Your task to perform on an android device: find snoozed emails in the gmail app Image 0: 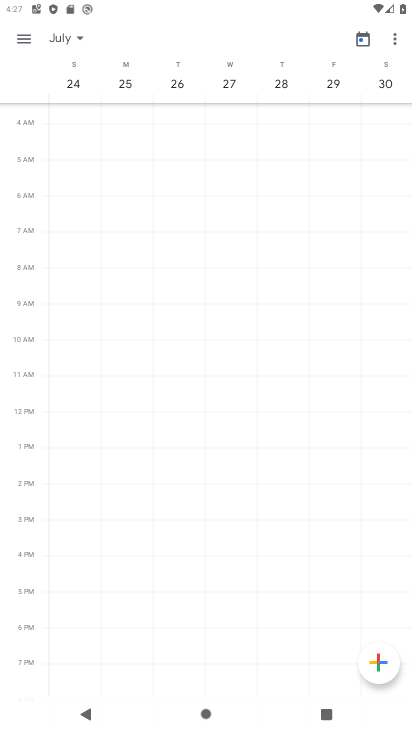
Step 0: drag from (207, 651) to (157, 200)
Your task to perform on an android device: find snoozed emails in the gmail app Image 1: 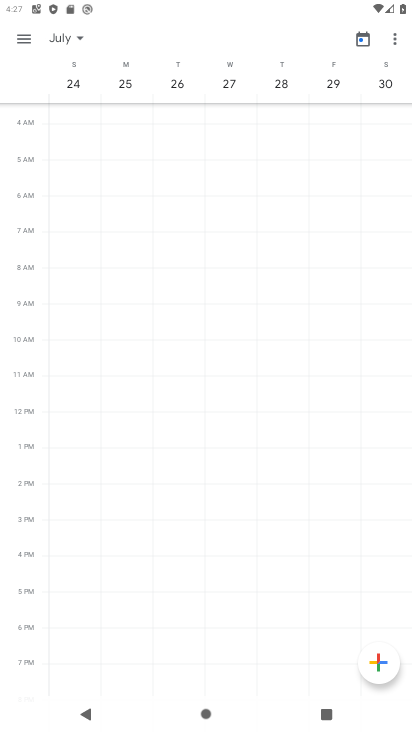
Step 1: press home button
Your task to perform on an android device: find snoozed emails in the gmail app Image 2: 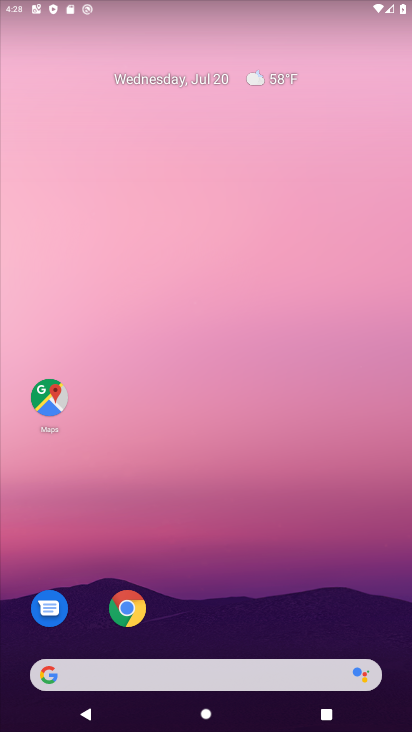
Step 2: drag from (183, 629) to (131, 222)
Your task to perform on an android device: find snoozed emails in the gmail app Image 3: 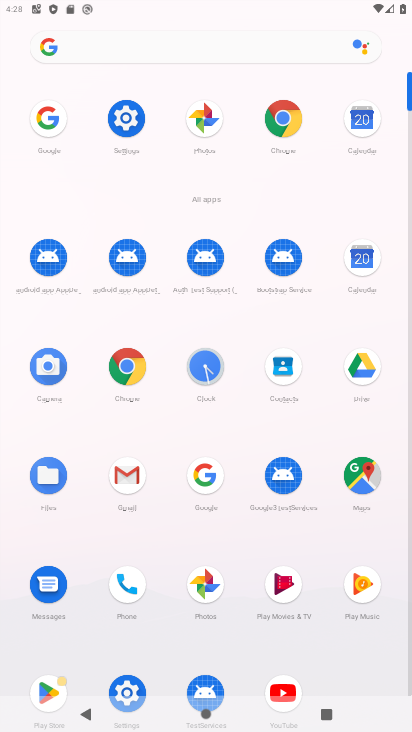
Step 3: click (134, 475)
Your task to perform on an android device: find snoozed emails in the gmail app Image 4: 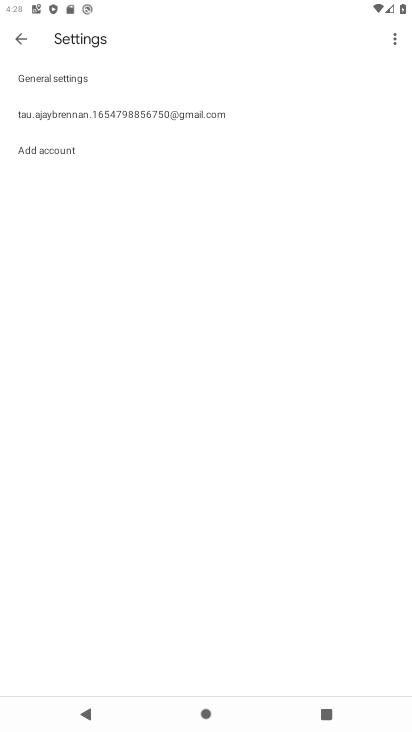
Step 4: click (10, 33)
Your task to perform on an android device: find snoozed emails in the gmail app Image 5: 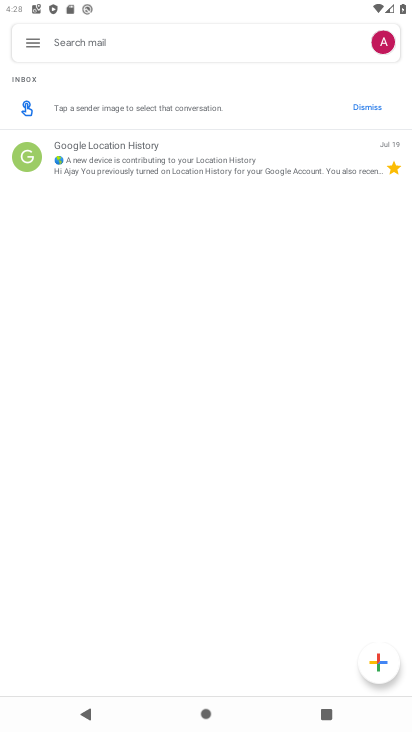
Step 5: click (32, 48)
Your task to perform on an android device: find snoozed emails in the gmail app Image 6: 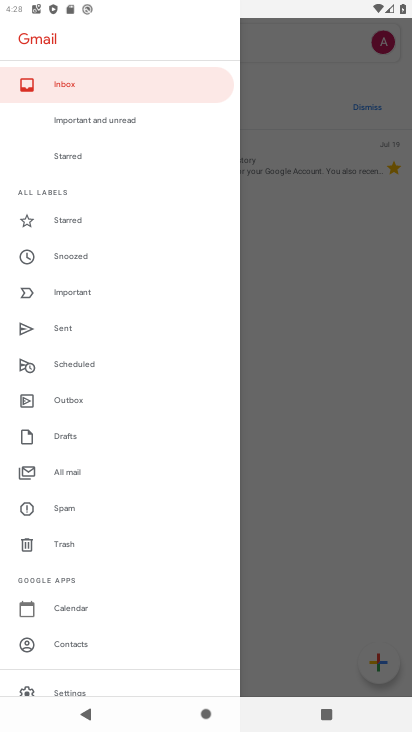
Step 6: click (76, 245)
Your task to perform on an android device: find snoozed emails in the gmail app Image 7: 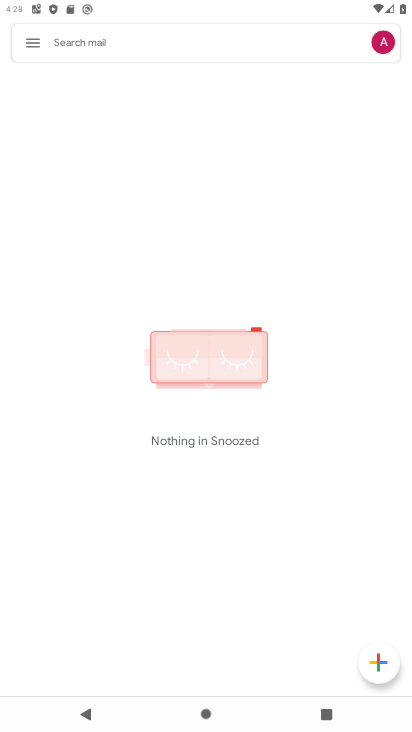
Step 7: task complete